Your task to perform on an android device: open app "Spotify" Image 0: 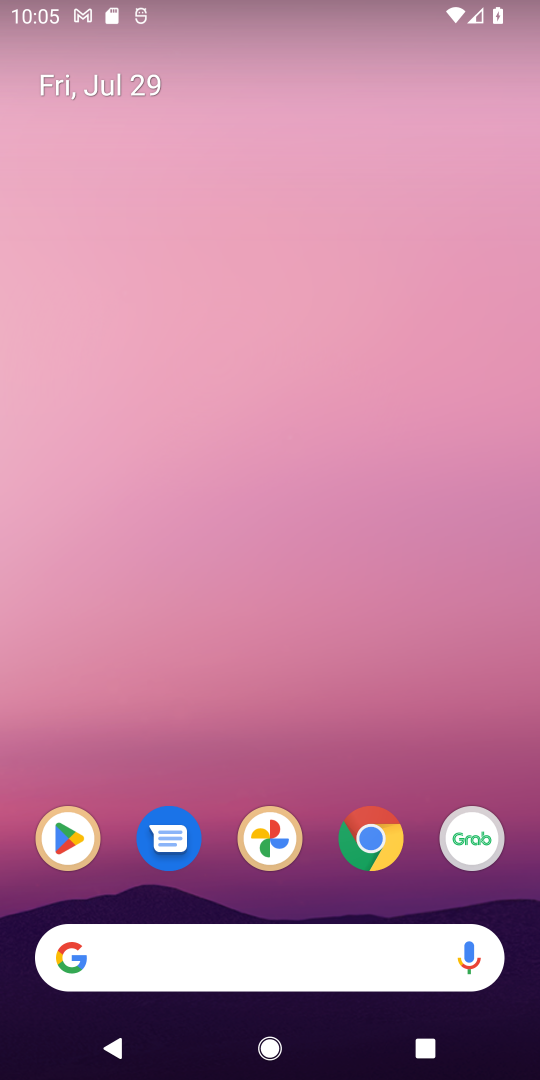
Step 0: click (72, 835)
Your task to perform on an android device: open app "Spotify" Image 1: 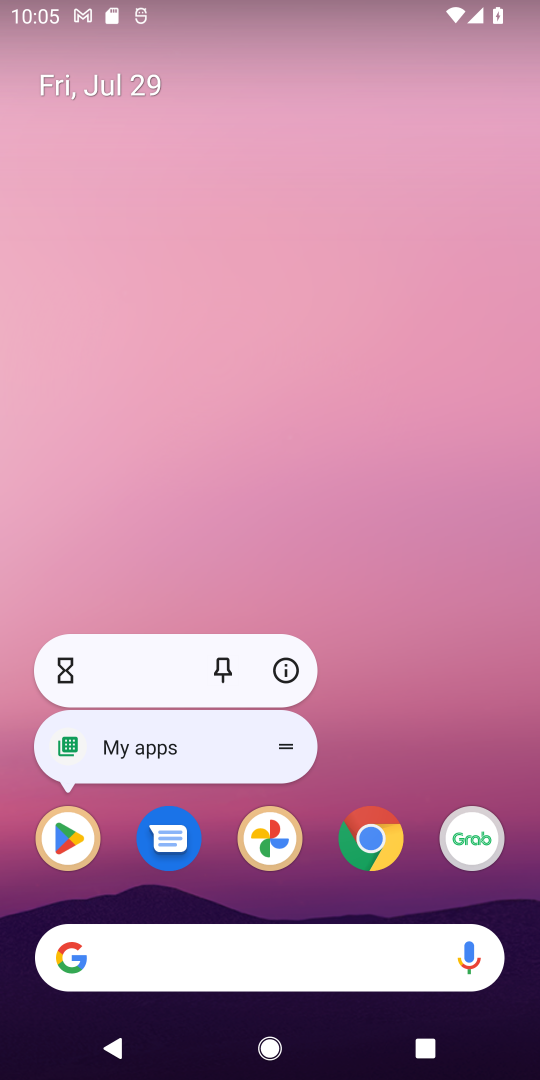
Step 1: click (57, 820)
Your task to perform on an android device: open app "Spotify" Image 2: 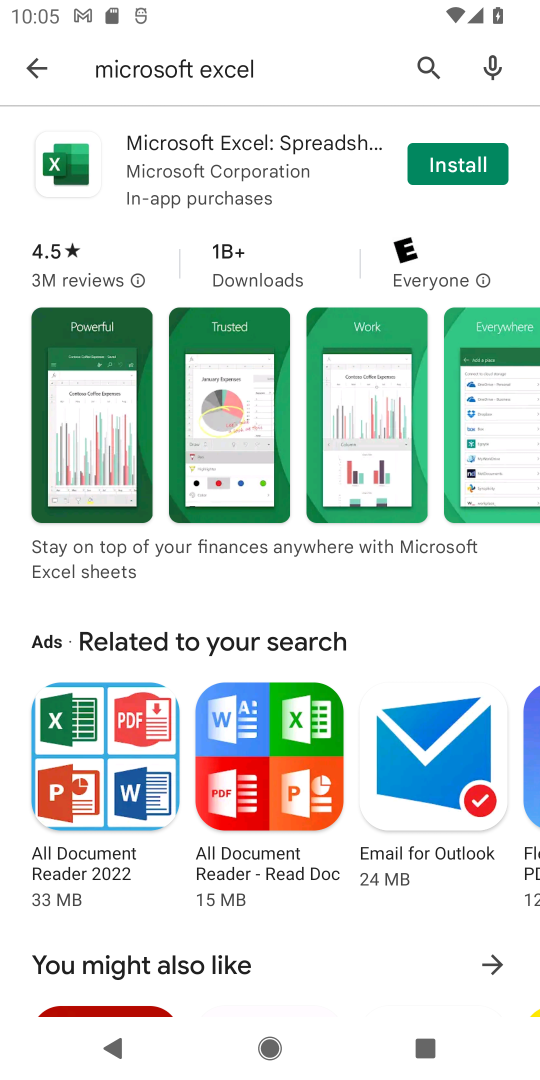
Step 2: click (171, 63)
Your task to perform on an android device: open app "Spotify" Image 3: 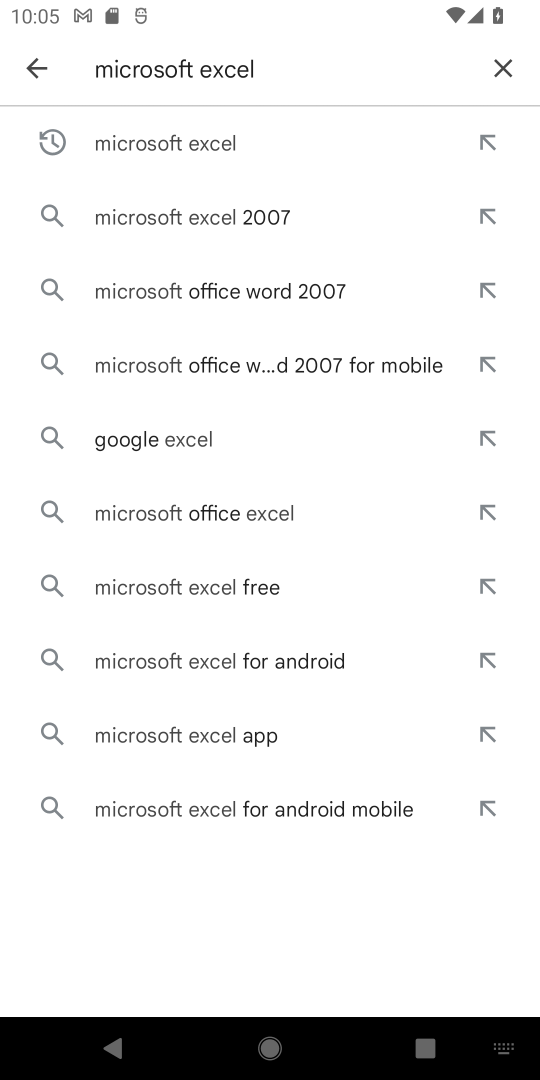
Step 3: click (496, 77)
Your task to perform on an android device: open app "Spotify" Image 4: 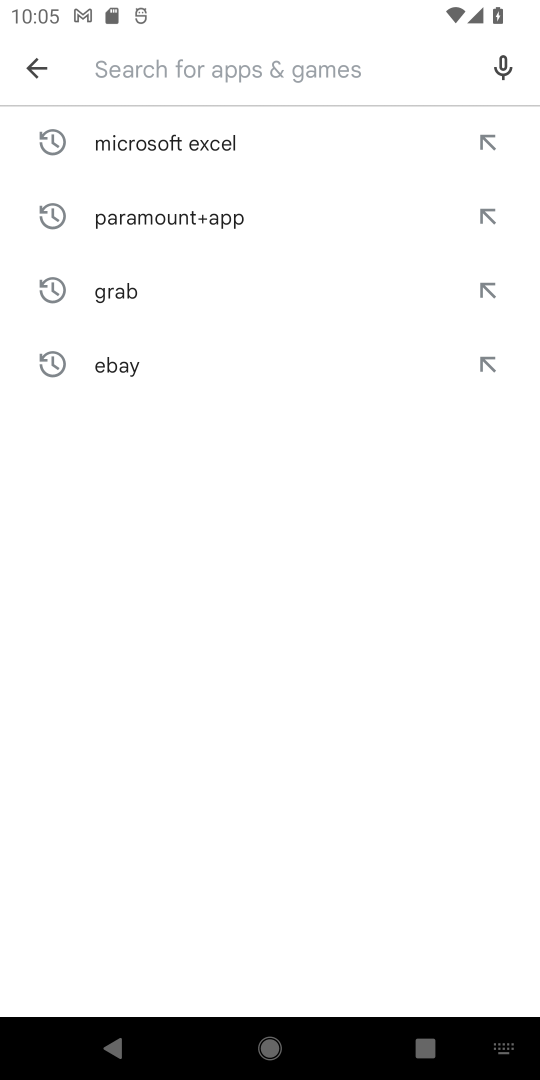
Step 4: type "spotify"
Your task to perform on an android device: open app "Spotify" Image 5: 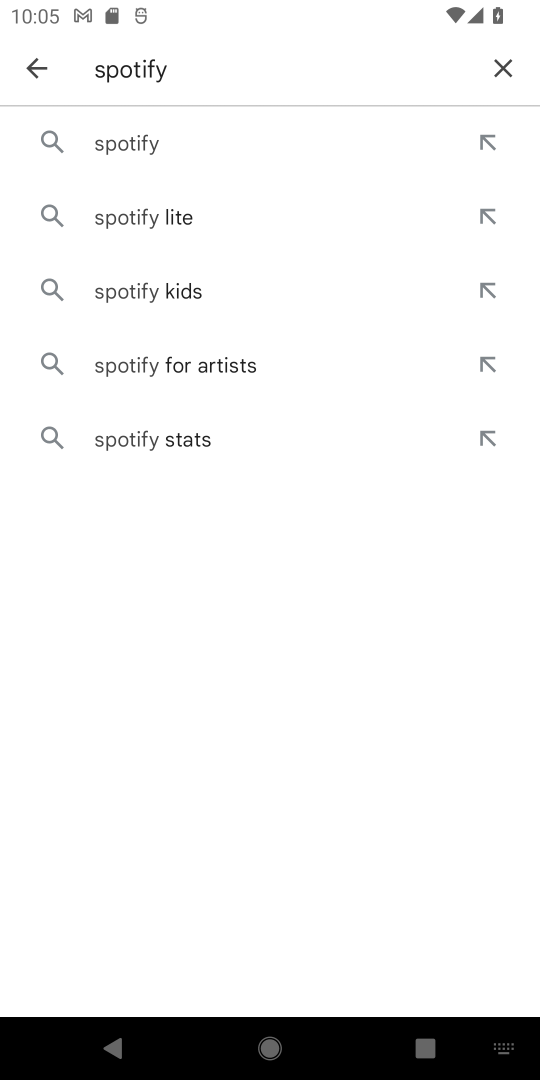
Step 5: click (249, 145)
Your task to perform on an android device: open app "Spotify" Image 6: 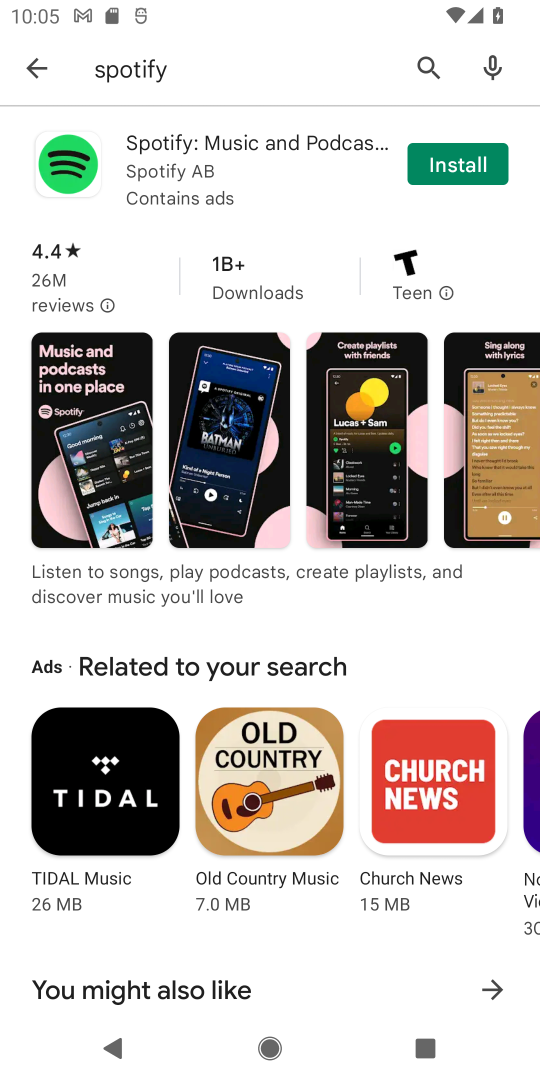
Step 6: task complete